Your task to perform on an android device: turn vacation reply on in the gmail app Image 0: 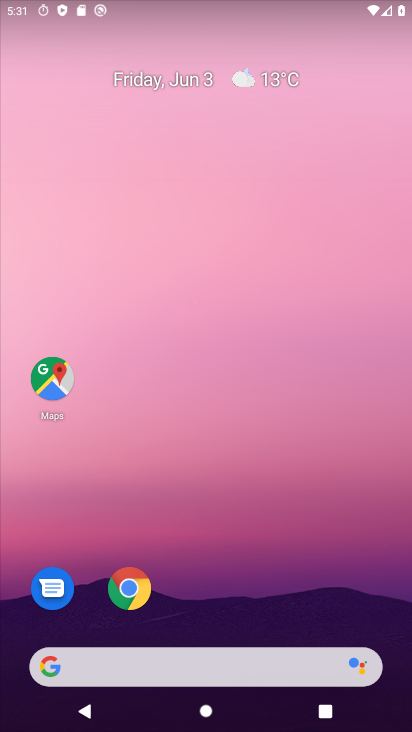
Step 0: drag from (237, 515) to (220, 23)
Your task to perform on an android device: turn vacation reply on in the gmail app Image 1: 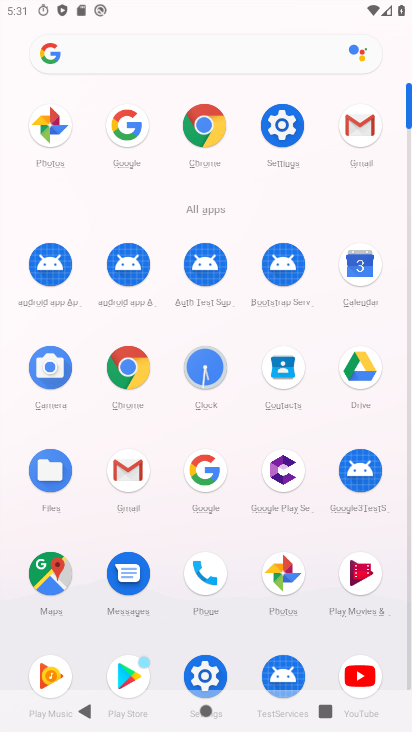
Step 1: drag from (180, 210) to (159, 52)
Your task to perform on an android device: turn vacation reply on in the gmail app Image 2: 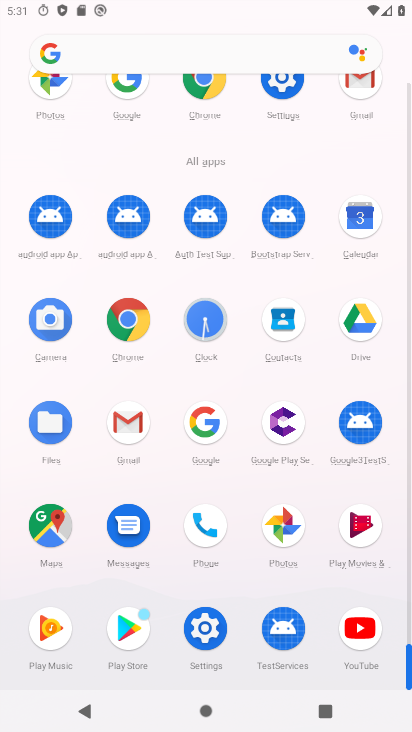
Step 2: click (131, 443)
Your task to perform on an android device: turn vacation reply on in the gmail app Image 3: 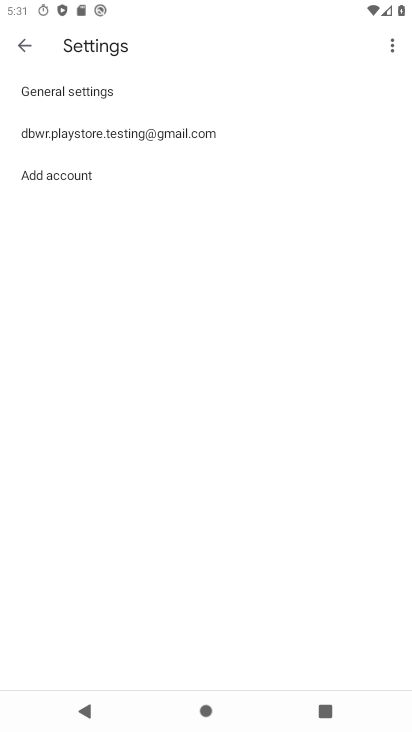
Step 3: click (146, 149)
Your task to perform on an android device: turn vacation reply on in the gmail app Image 4: 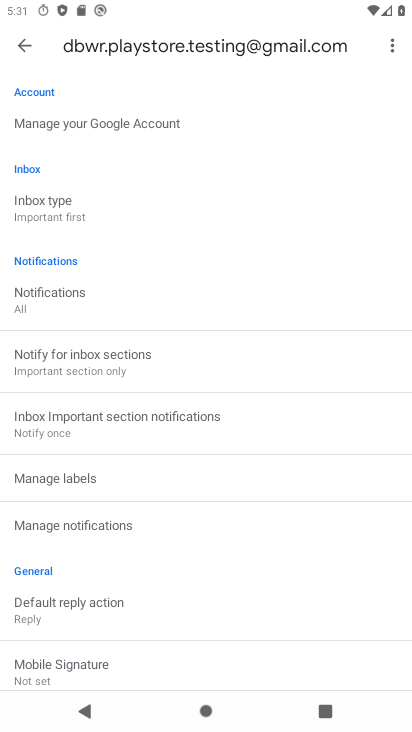
Step 4: drag from (188, 650) to (123, 1)
Your task to perform on an android device: turn vacation reply on in the gmail app Image 5: 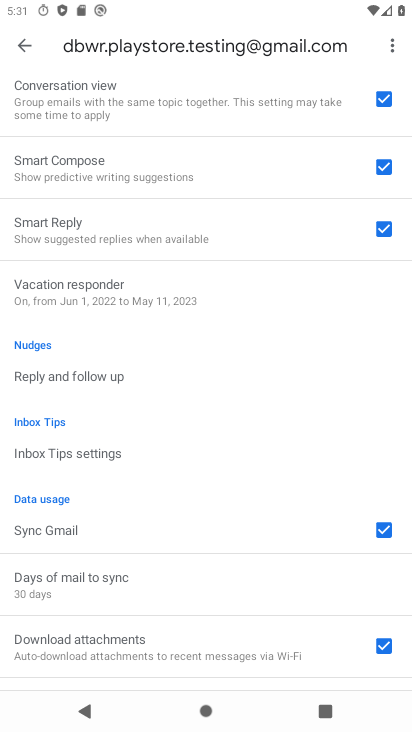
Step 5: drag from (205, 579) to (190, 352)
Your task to perform on an android device: turn vacation reply on in the gmail app Image 6: 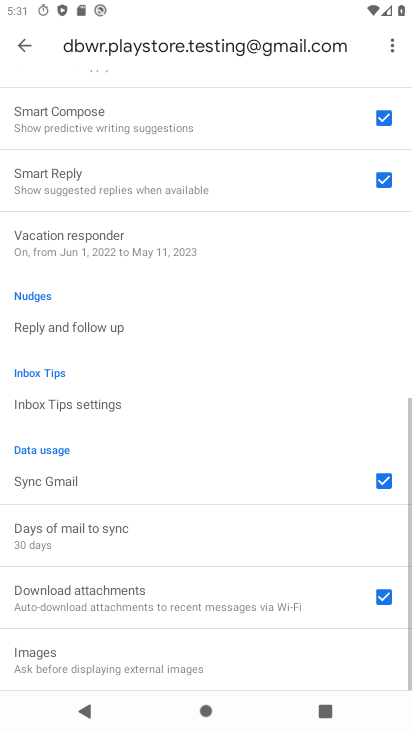
Step 6: click (153, 262)
Your task to perform on an android device: turn vacation reply on in the gmail app Image 7: 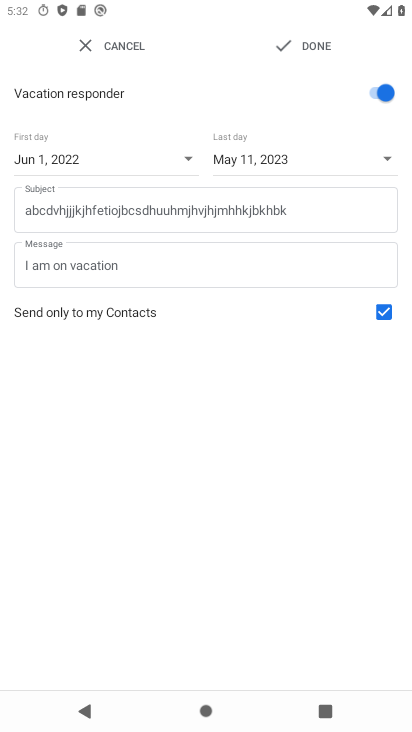
Step 7: click (318, 53)
Your task to perform on an android device: turn vacation reply on in the gmail app Image 8: 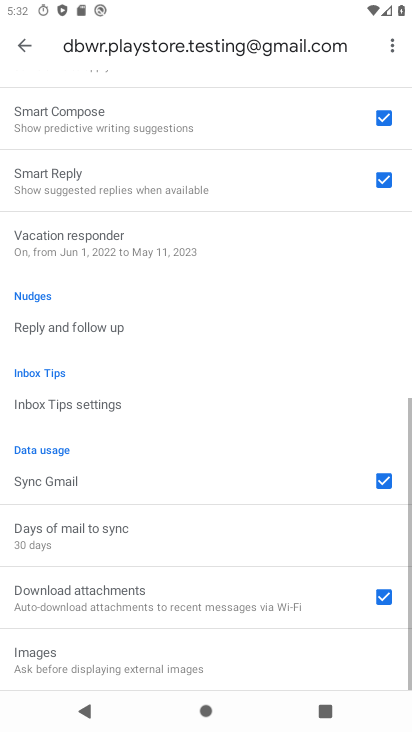
Step 8: task complete